Your task to perform on an android device: See recent photos Image 0: 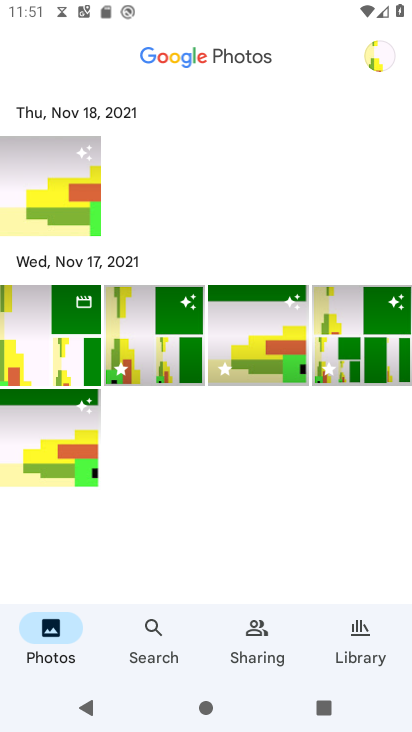
Step 0: task complete